Your task to perform on an android device: See recent photos Image 0: 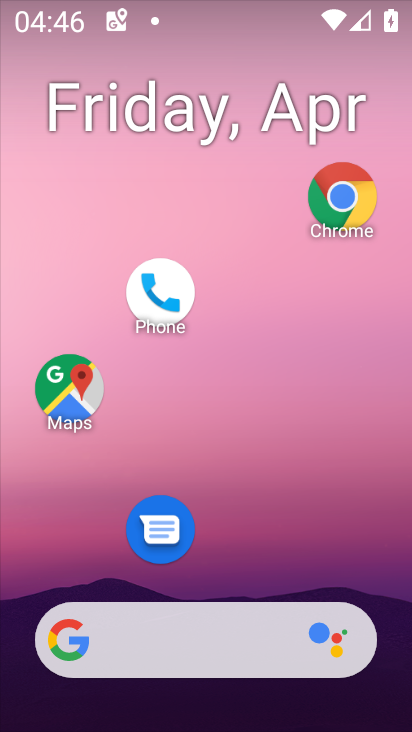
Step 0: drag from (227, 577) to (236, 82)
Your task to perform on an android device: See recent photos Image 1: 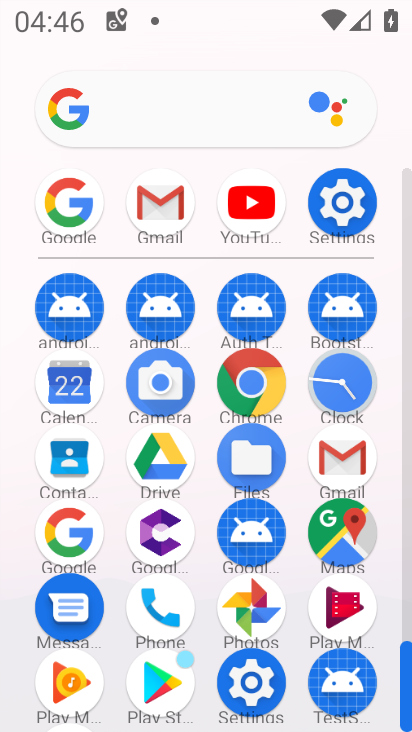
Step 1: click (247, 604)
Your task to perform on an android device: See recent photos Image 2: 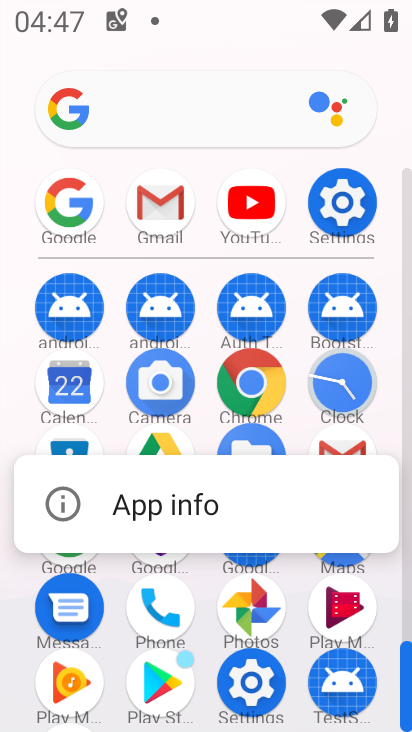
Step 2: click (251, 601)
Your task to perform on an android device: See recent photos Image 3: 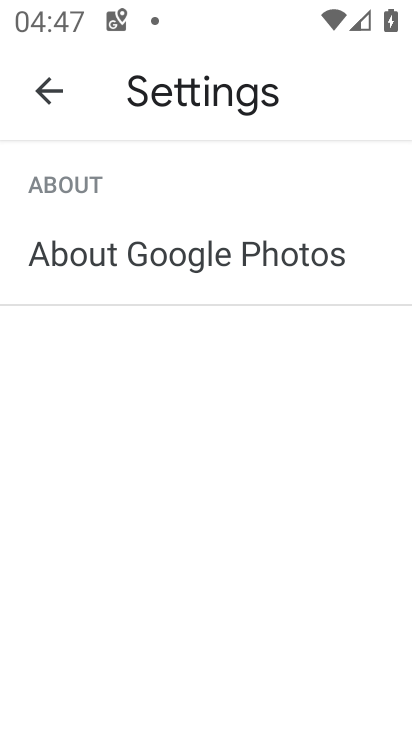
Step 3: click (48, 100)
Your task to perform on an android device: See recent photos Image 4: 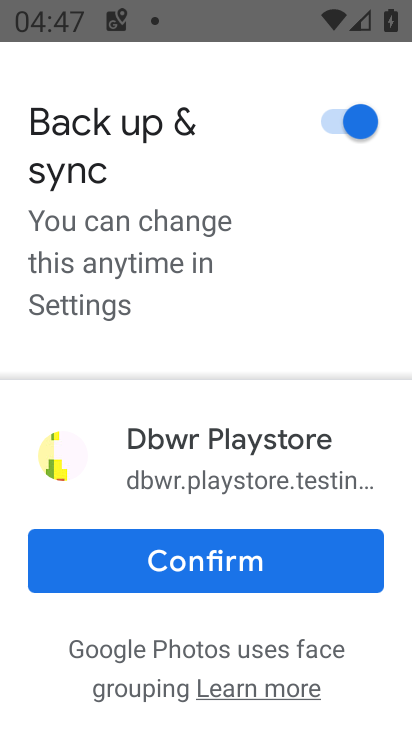
Step 4: click (210, 557)
Your task to perform on an android device: See recent photos Image 5: 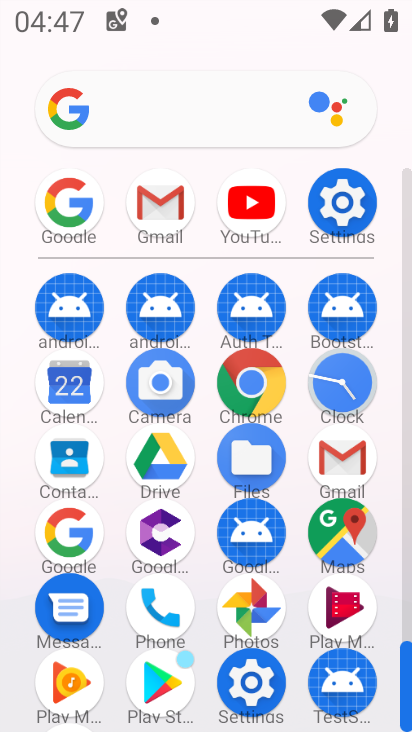
Step 5: click (250, 603)
Your task to perform on an android device: See recent photos Image 6: 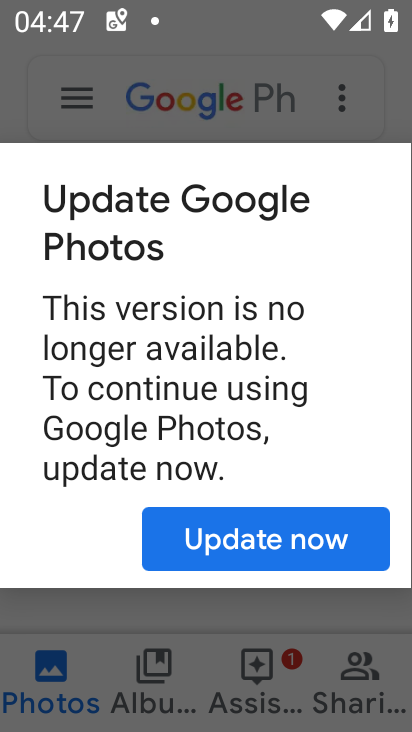
Step 6: click (288, 539)
Your task to perform on an android device: See recent photos Image 7: 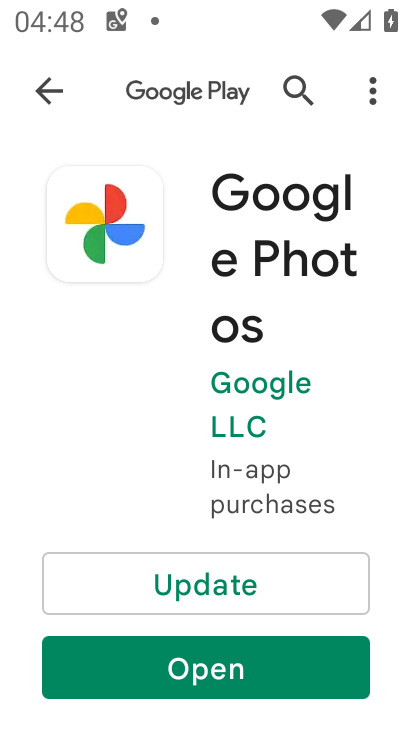
Step 7: click (216, 585)
Your task to perform on an android device: See recent photos Image 8: 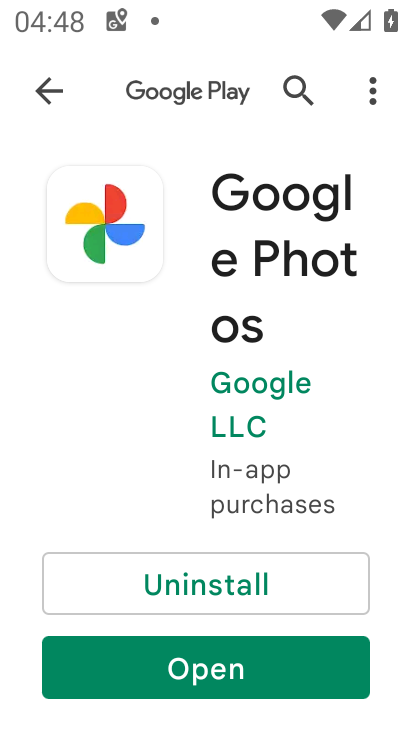
Step 8: click (227, 664)
Your task to perform on an android device: See recent photos Image 9: 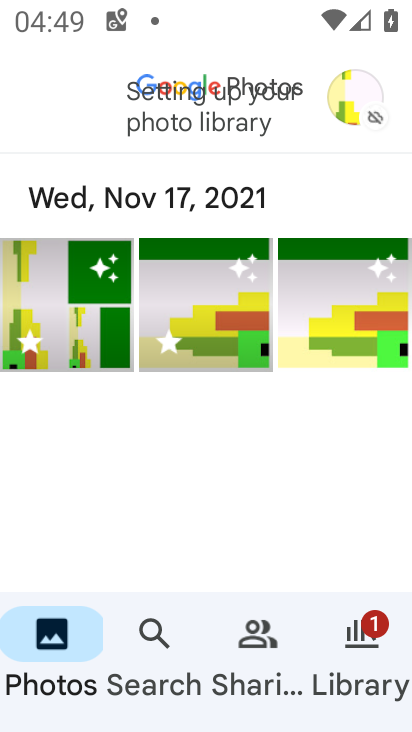
Step 9: click (90, 289)
Your task to perform on an android device: See recent photos Image 10: 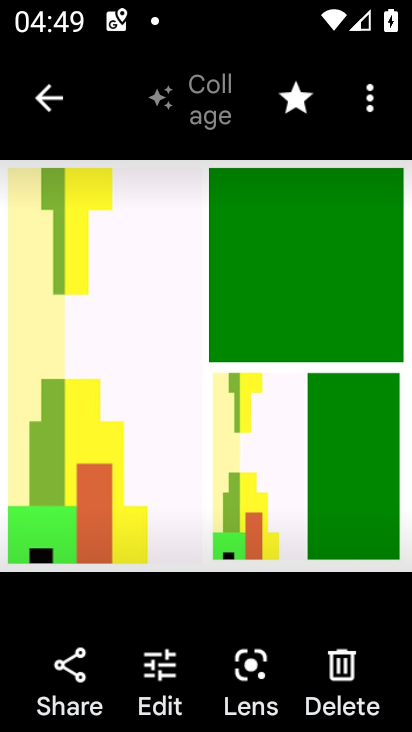
Step 10: task complete